Your task to perform on an android device: Open settings on Google Maps Image 0: 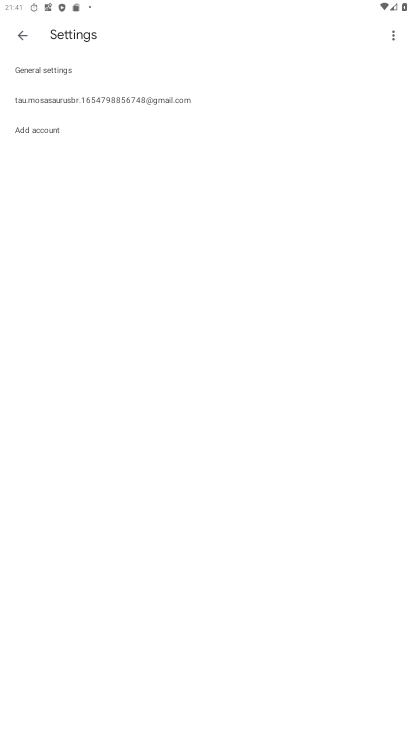
Step 0: press home button
Your task to perform on an android device: Open settings on Google Maps Image 1: 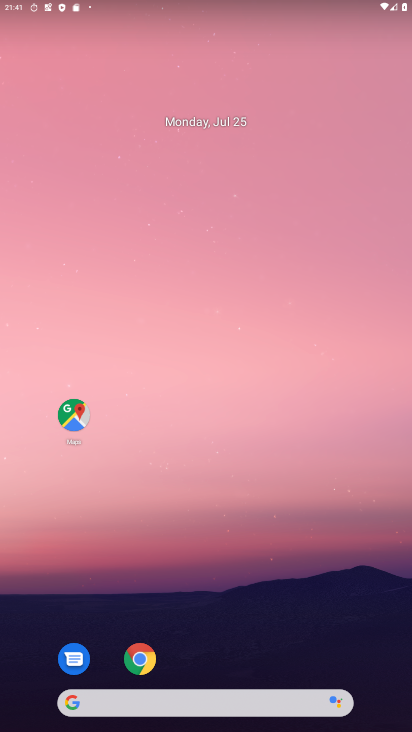
Step 1: click (69, 417)
Your task to perform on an android device: Open settings on Google Maps Image 2: 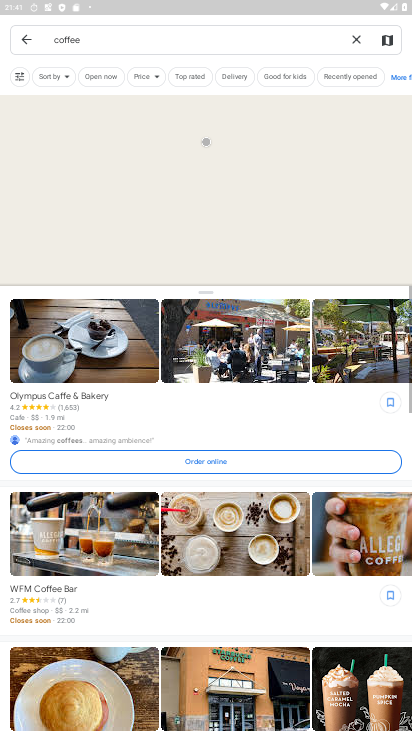
Step 2: click (21, 37)
Your task to perform on an android device: Open settings on Google Maps Image 3: 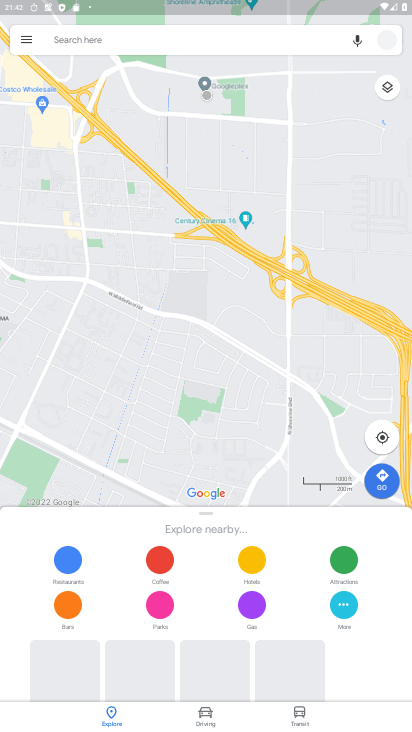
Step 3: click (30, 43)
Your task to perform on an android device: Open settings on Google Maps Image 4: 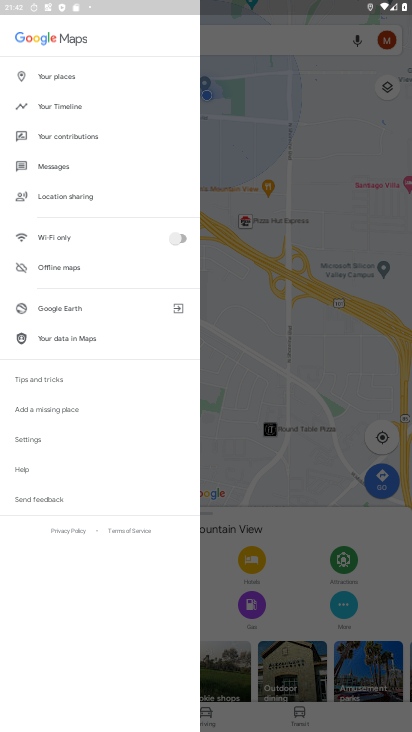
Step 4: click (39, 444)
Your task to perform on an android device: Open settings on Google Maps Image 5: 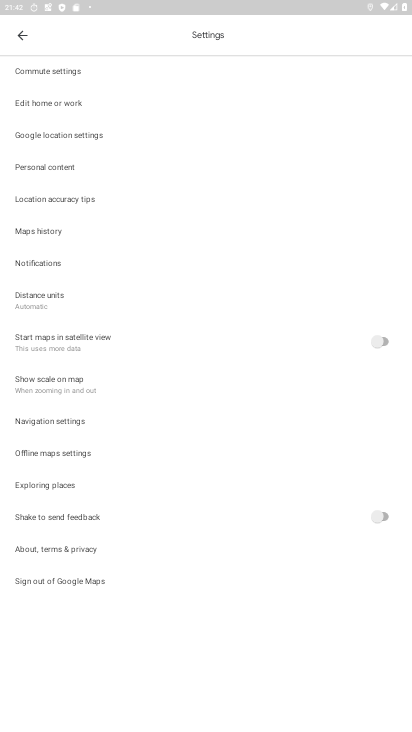
Step 5: task complete